Your task to perform on an android device: toggle location history Image 0: 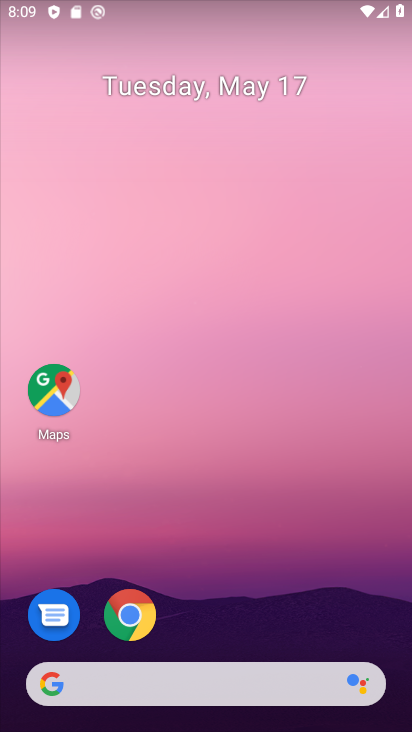
Step 0: click (53, 393)
Your task to perform on an android device: toggle location history Image 1: 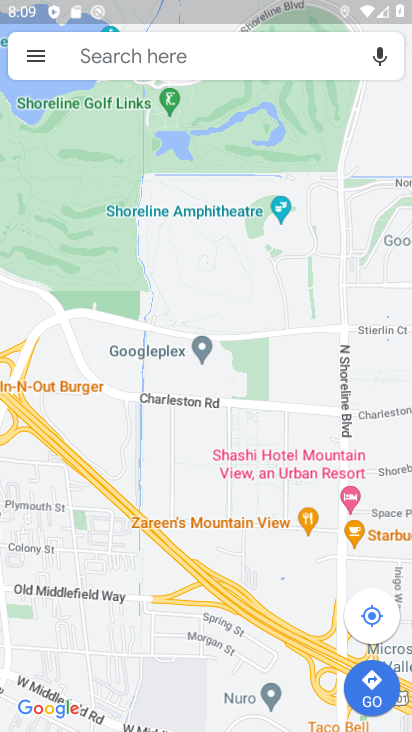
Step 1: click (27, 54)
Your task to perform on an android device: toggle location history Image 2: 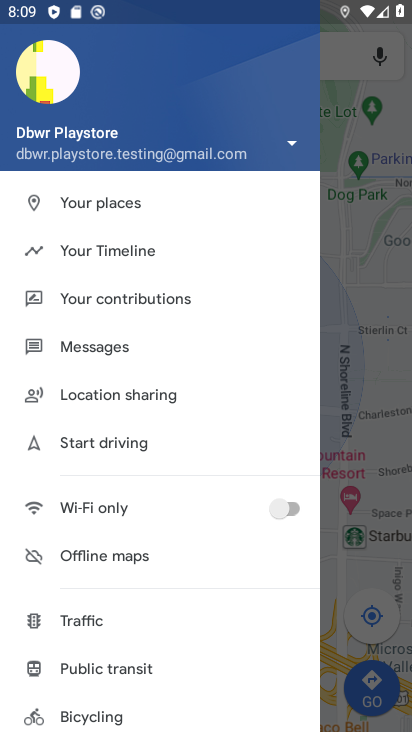
Step 2: drag from (219, 670) to (228, 305)
Your task to perform on an android device: toggle location history Image 3: 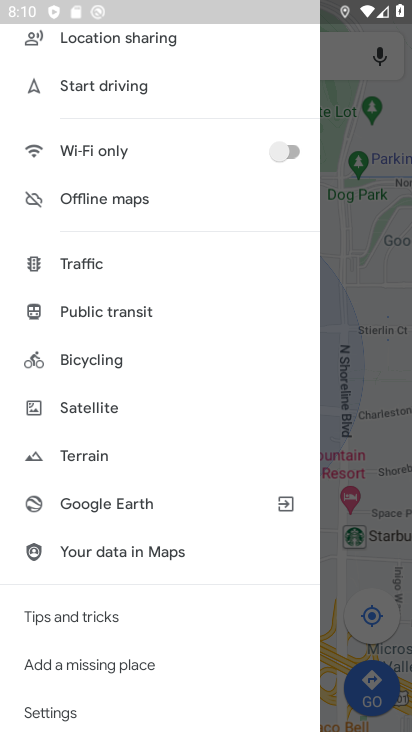
Step 3: click (51, 717)
Your task to perform on an android device: toggle location history Image 4: 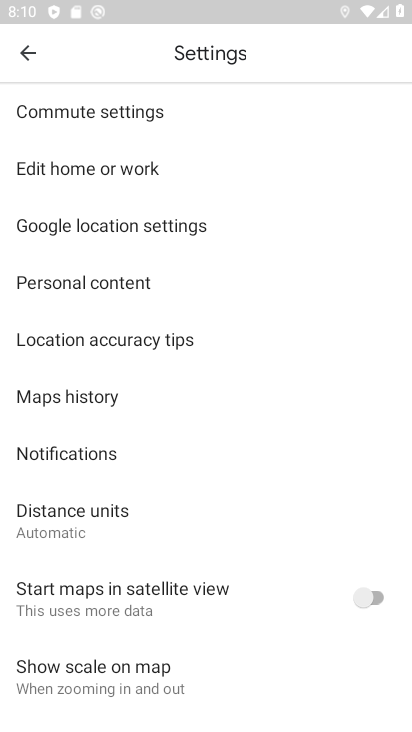
Step 4: click (80, 280)
Your task to perform on an android device: toggle location history Image 5: 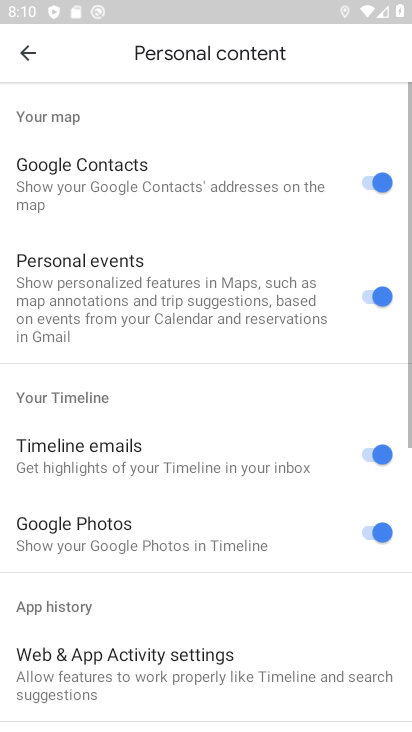
Step 5: drag from (321, 667) to (299, 117)
Your task to perform on an android device: toggle location history Image 6: 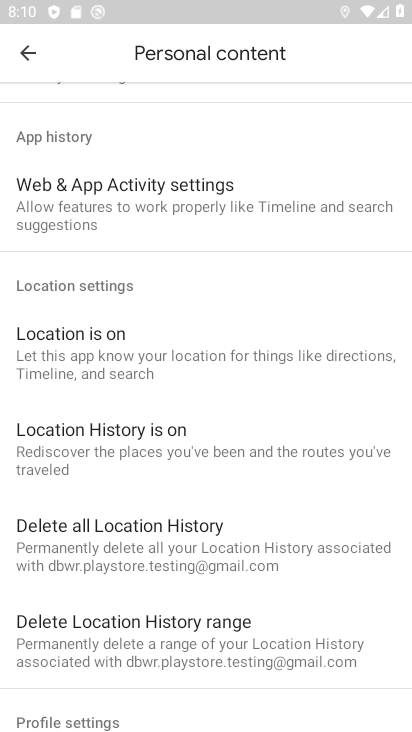
Step 6: click (99, 439)
Your task to perform on an android device: toggle location history Image 7: 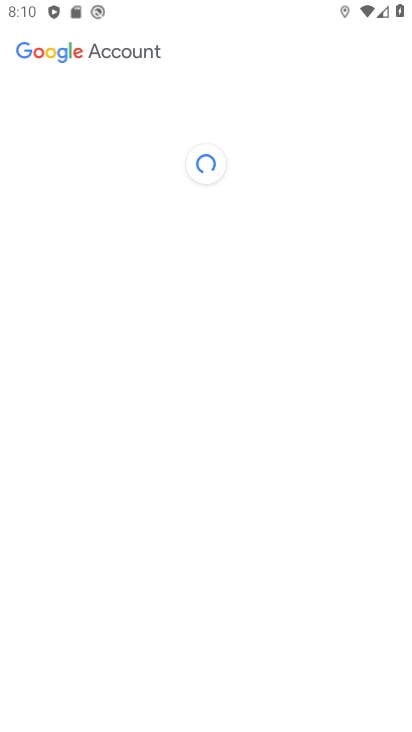
Step 7: click (99, 439)
Your task to perform on an android device: toggle location history Image 8: 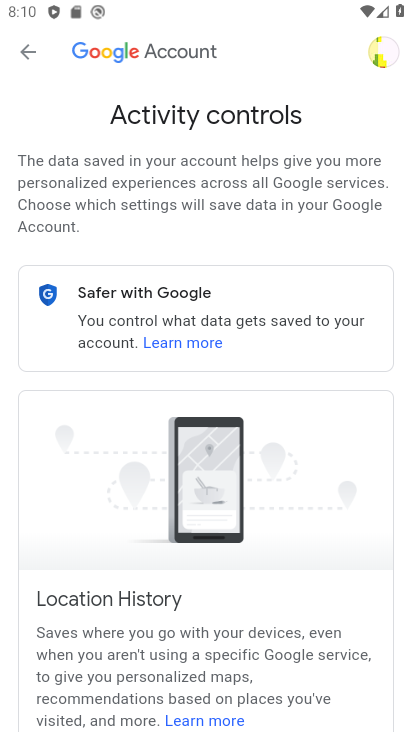
Step 8: drag from (273, 637) to (238, 148)
Your task to perform on an android device: toggle location history Image 9: 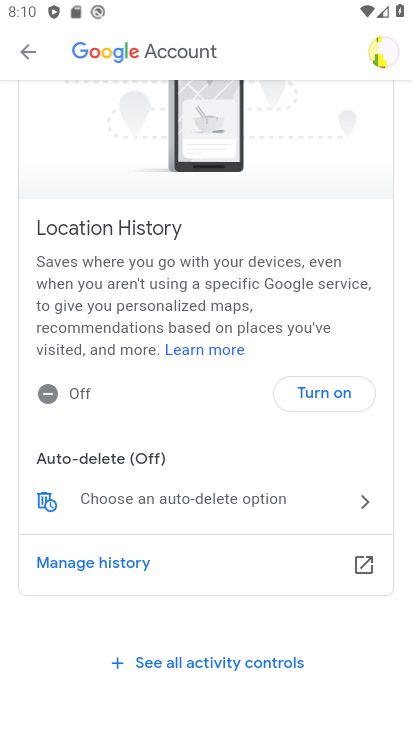
Step 9: click (312, 387)
Your task to perform on an android device: toggle location history Image 10: 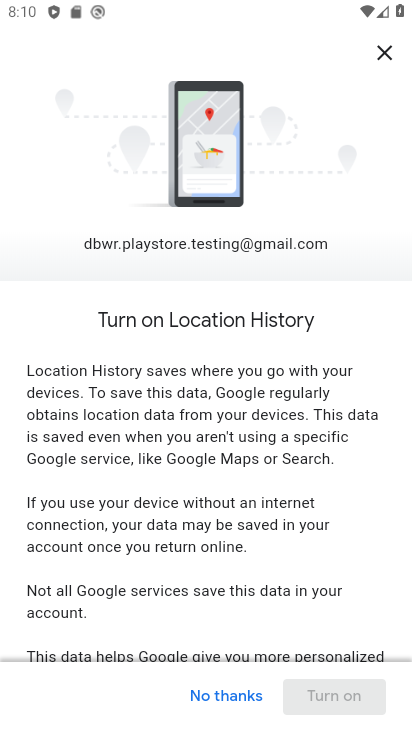
Step 10: drag from (274, 597) to (239, 264)
Your task to perform on an android device: toggle location history Image 11: 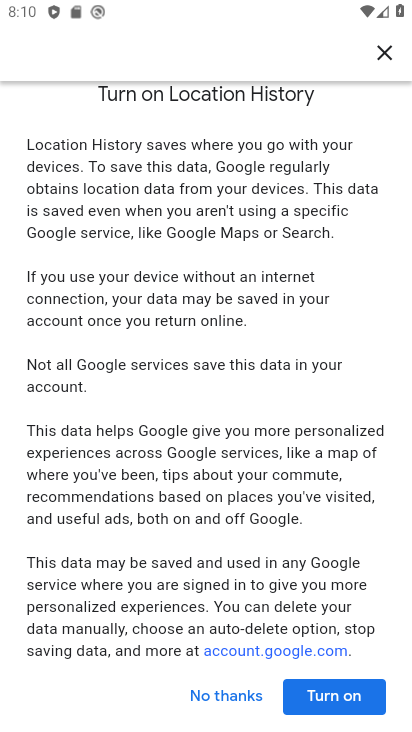
Step 11: drag from (231, 536) to (218, 320)
Your task to perform on an android device: toggle location history Image 12: 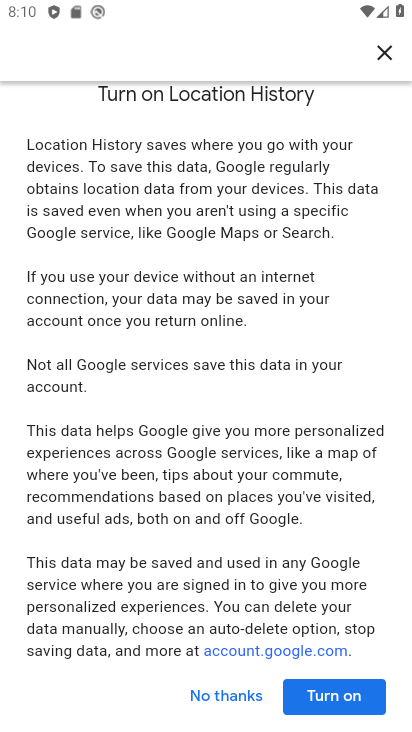
Step 12: drag from (207, 569) to (202, 347)
Your task to perform on an android device: toggle location history Image 13: 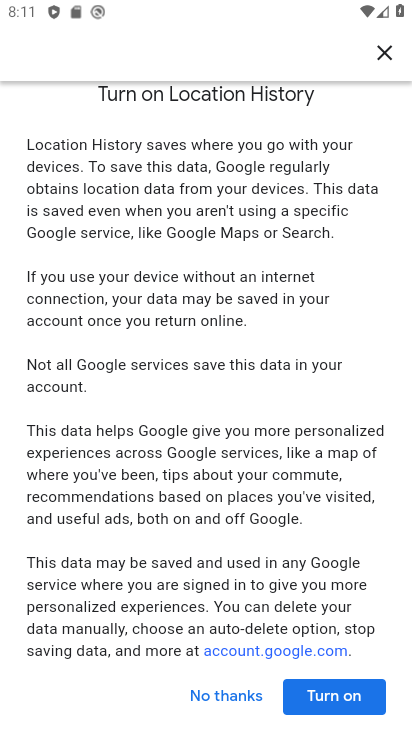
Step 13: click (337, 695)
Your task to perform on an android device: toggle location history Image 14: 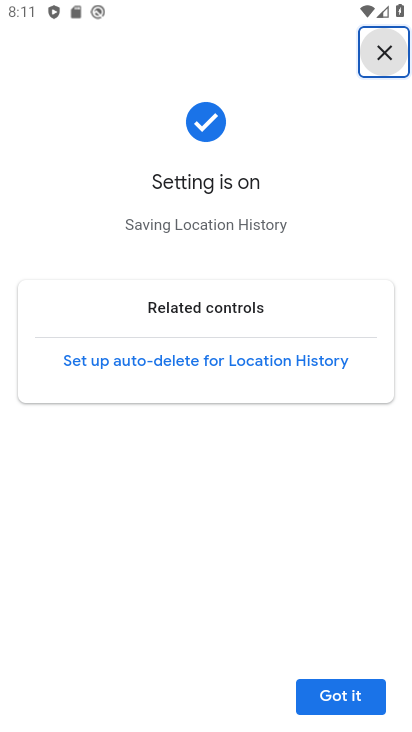
Step 14: click (324, 691)
Your task to perform on an android device: toggle location history Image 15: 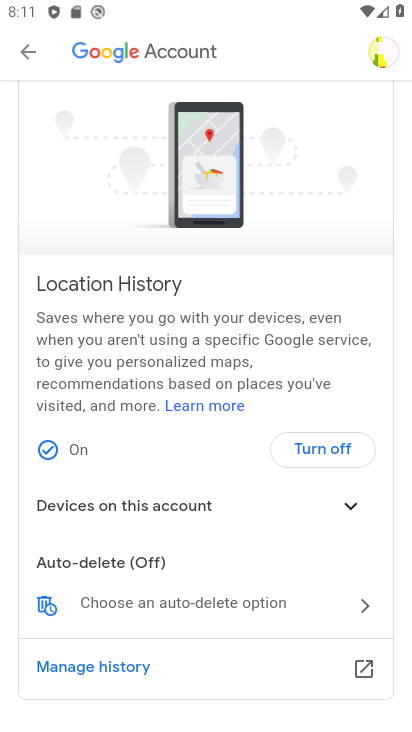
Step 15: task complete